Your task to perform on an android device: Open eBay Image 0: 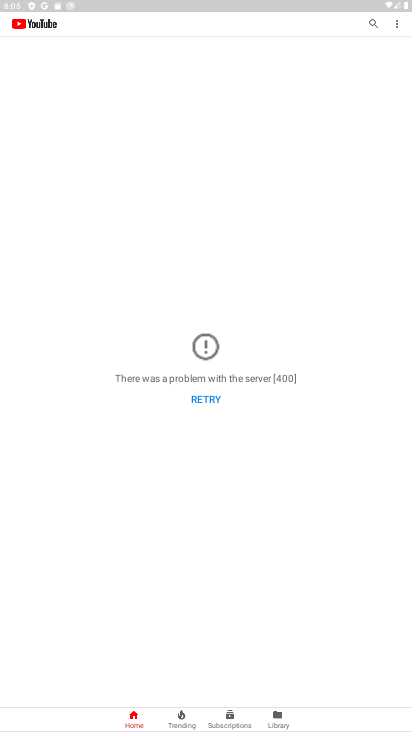
Step 0: press home button
Your task to perform on an android device: Open eBay Image 1: 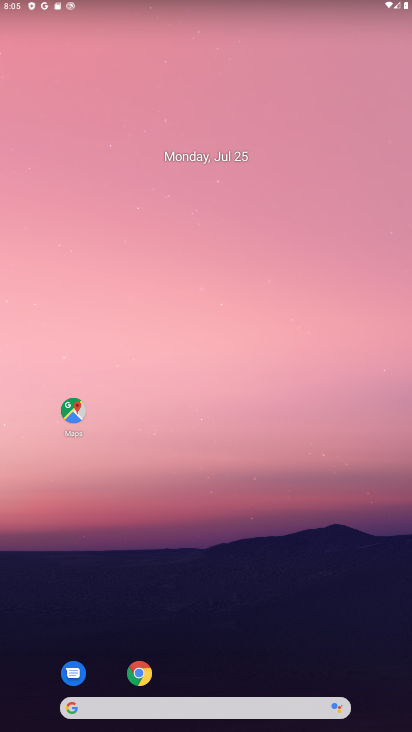
Step 1: drag from (215, 696) to (232, 271)
Your task to perform on an android device: Open eBay Image 2: 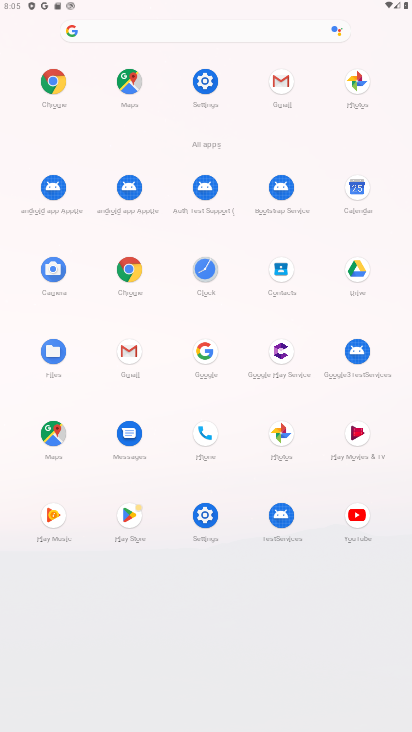
Step 2: click (141, 272)
Your task to perform on an android device: Open eBay Image 3: 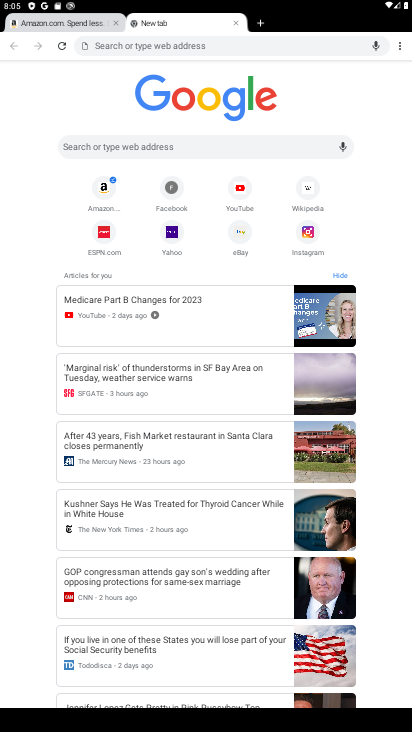
Step 3: click (227, 233)
Your task to perform on an android device: Open eBay Image 4: 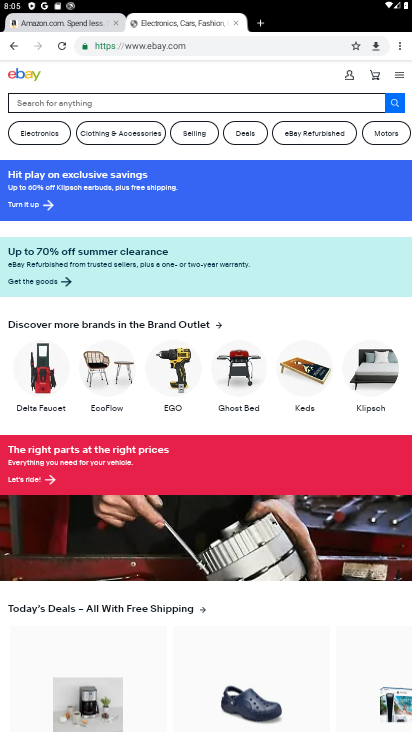
Step 4: task complete